Your task to perform on an android device: Open Android settings Image 0: 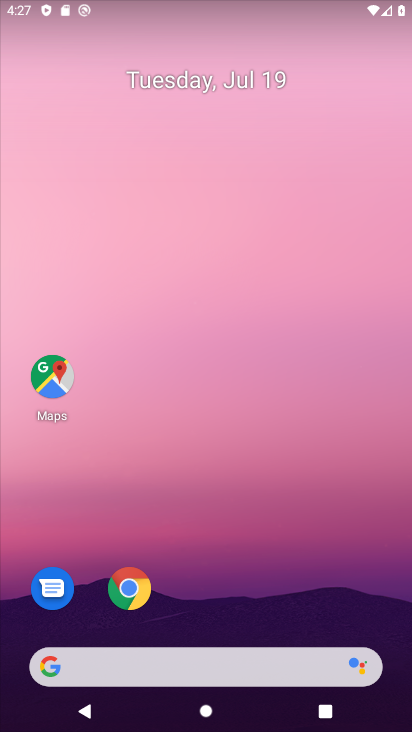
Step 0: drag from (352, 590) to (325, 167)
Your task to perform on an android device: Open Android settings Image 1: 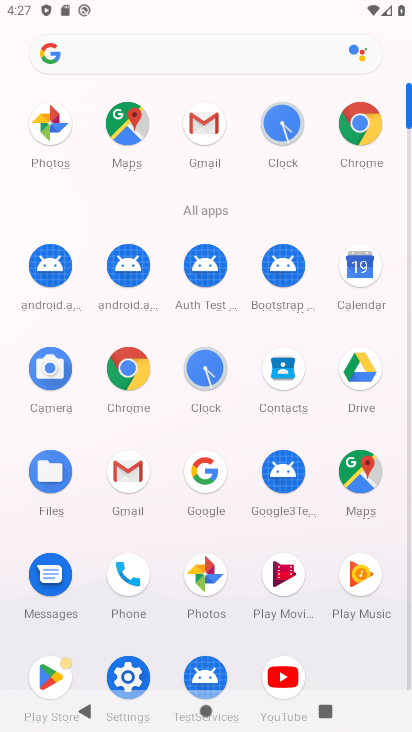
Step 1: click (128, 674)
Your task to perform on an android device: Open Android settings Image 2: 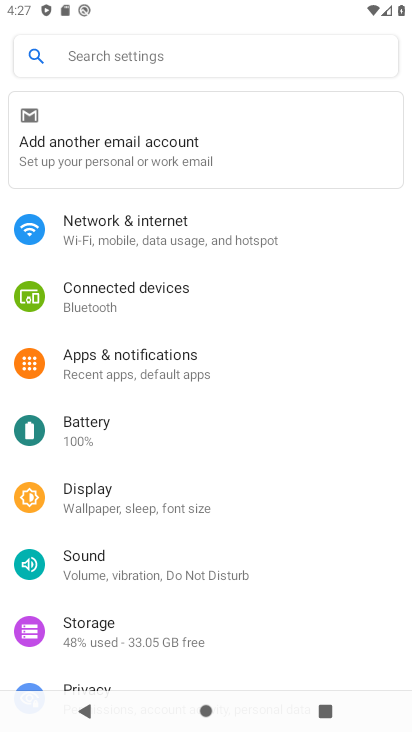
Step 2: drag from (302, 666) to (310, 208)
Your task to perform on an android device: Open Android settings Image 3: 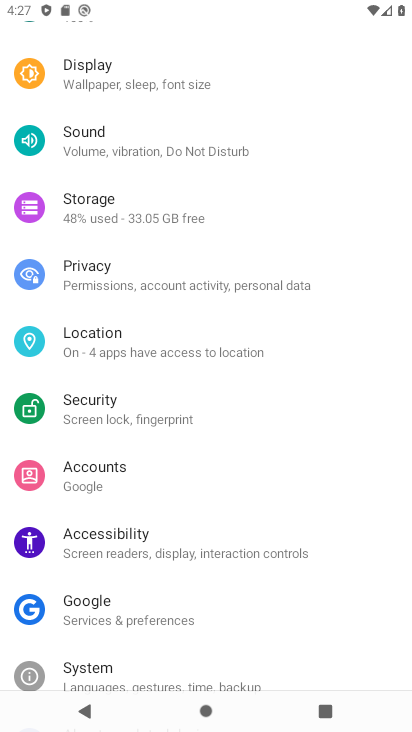
Step 3: drag from (309, 652) to (320, 234)
Your task to perform on an android device: Open Android settings Image 4: 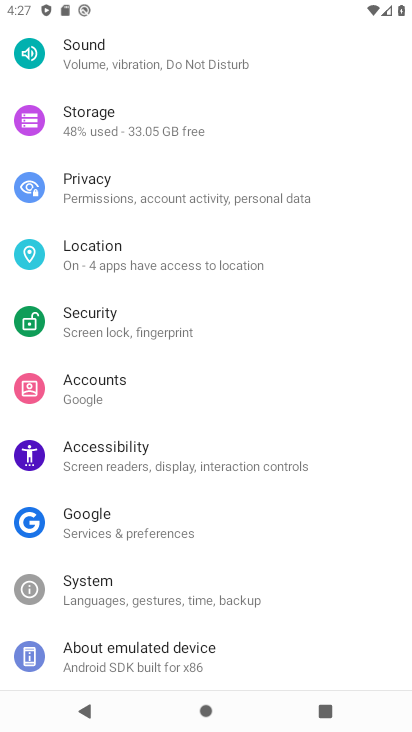
Step 4: click (89, 650)
Your task to perform on an android device: Open Android settings Image 5: 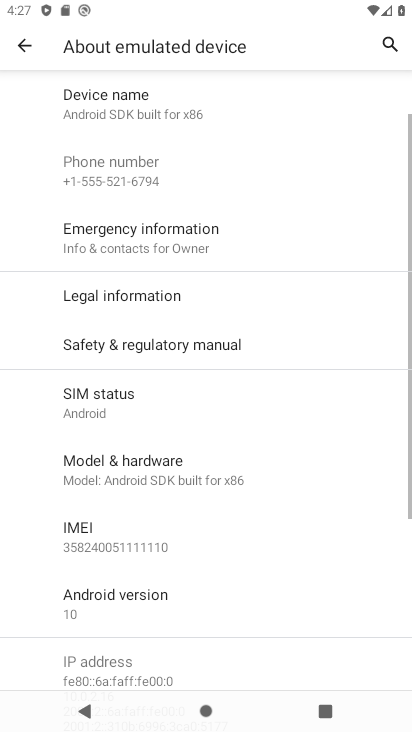
Step 5: task complete